Your task to perform on an android device: turn on showing notifications on the lock screen Image 0: 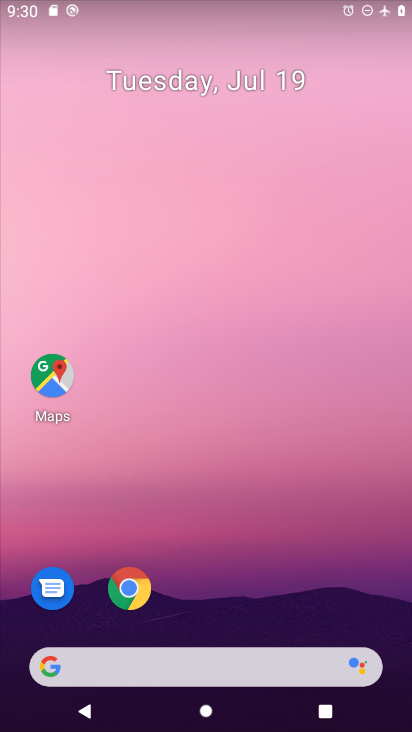
Step 0: drag from (328, 587) to (391, 419)
Your task to perform on an android device: turn on showing notifications on the lock screen Image 1: 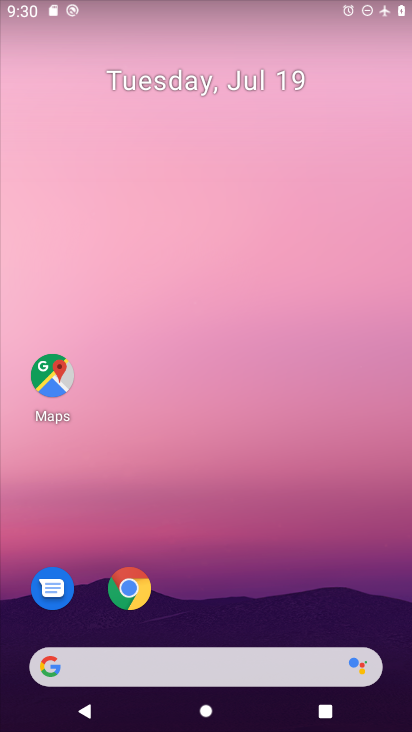
Step 1: drag from (332, 558) to (347, 109)
Your task to perform on an android device: turn on showing notifications on the lock screen Image 2: 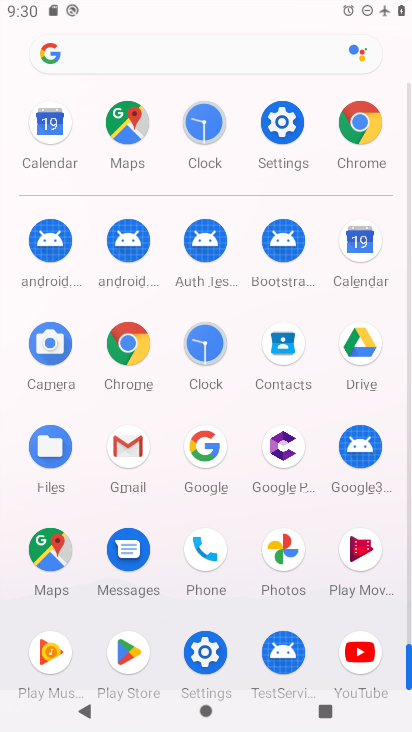
Step 2: click (294, 121)
Your task to perform on an android device: turn on showing notifications on the lock screen Image 3: 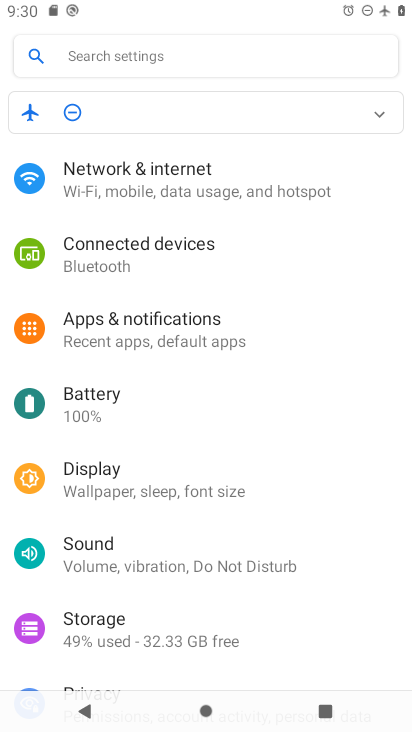
Step 3: drag from (327, 592) to (339, 355)
Your task to perform on an android device: turn on showing notifications on the lock screen Image 4: 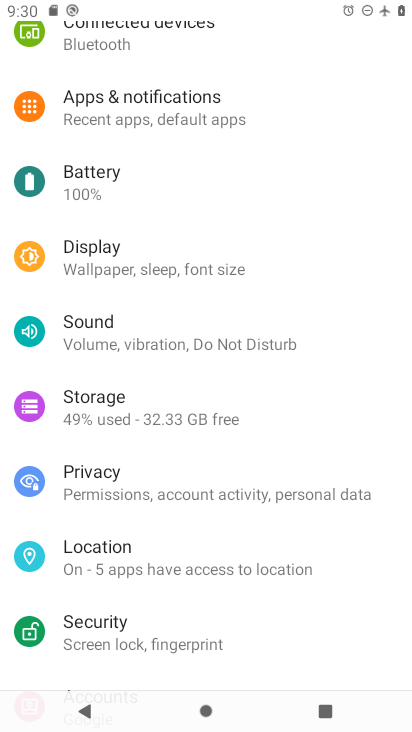
Step 4: drag from (316, 581) to (322, 343)
Your task to perform on an android device: turn on showing notifications on the lock screen Image 5: 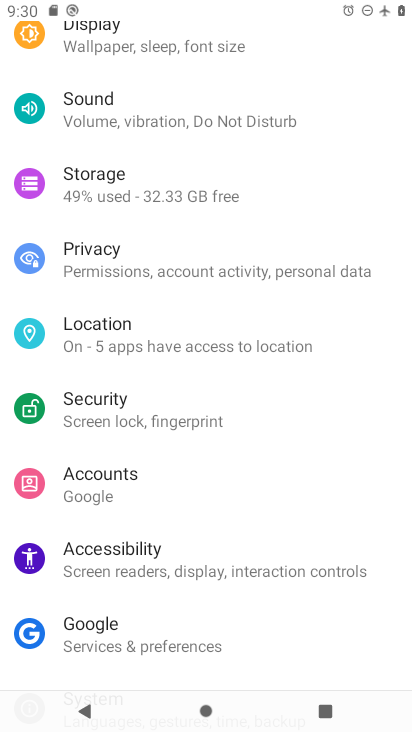
Step 5: drag from (325, 477) to (330, 329)
Your task to perform on an android device: turn on showing notifications on the lock screen Image 6: 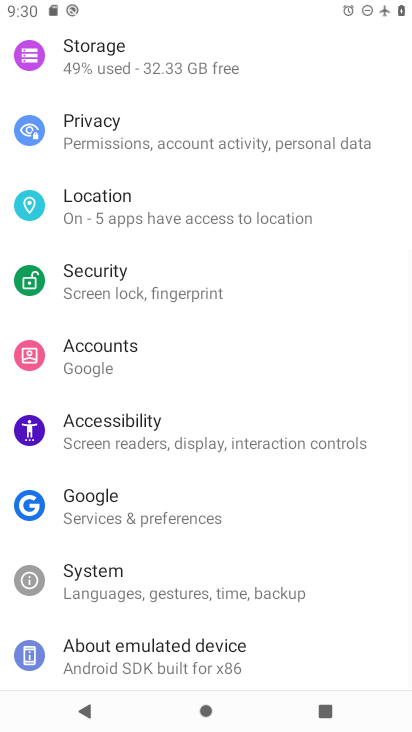
Step 6: drag from (290, 519) to (300, 341)
Your task to perform on an android device: turn on showing notifications on the lock screen Image 7: 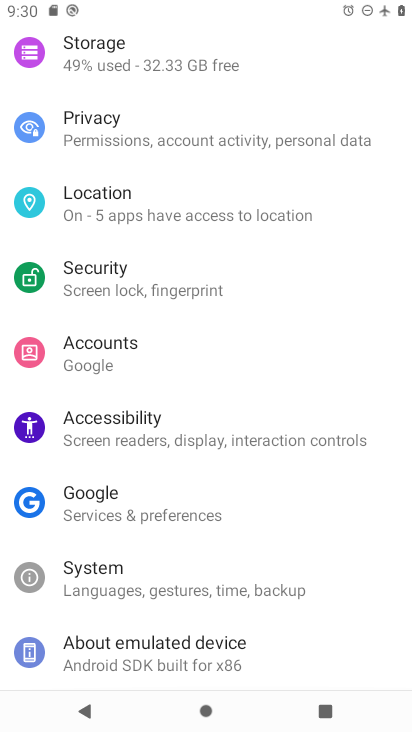
Step 7: drag from (342, 231) to (337, 353)
Your task to perform on an android device: turn on showing notifications on the lock screen Image 8: 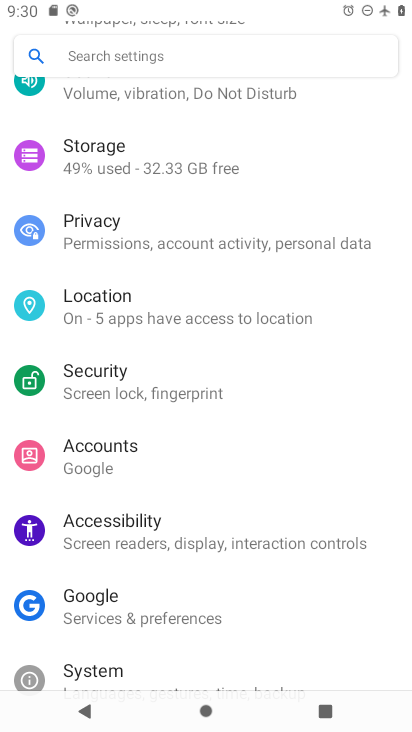
Step 8: drag from (344, 214) to (344, 335)
Your task to perform on an android device: turn on showing notifications on the lock screen Image 9: 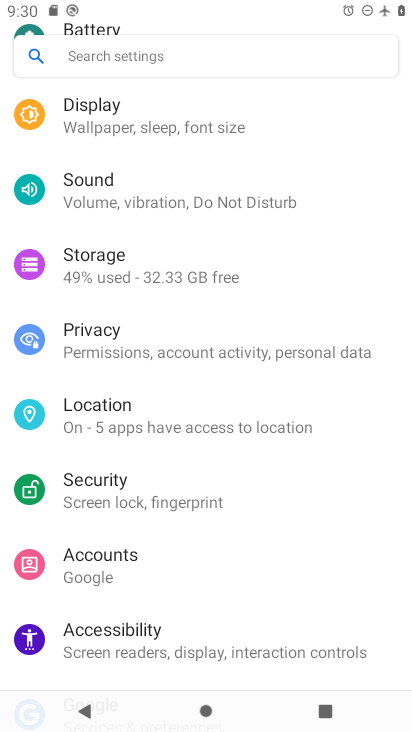
Step 9: drag from (352, 228) to (347, 339)
Your task to perform on an android device: turn on showing notifications on the lock screen Image 10: 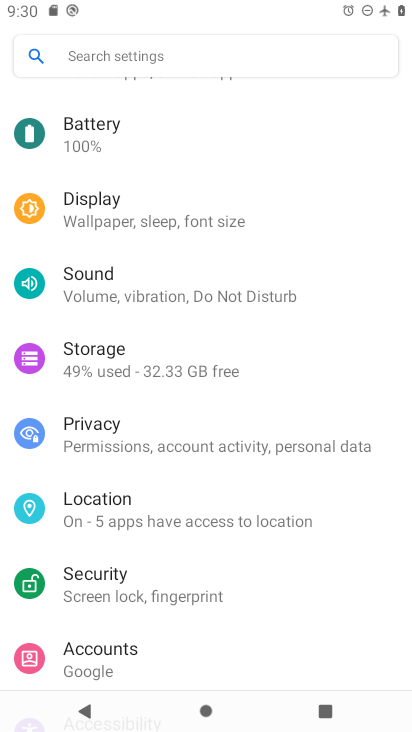
Step 10: drag from (354, 194) to (346, 301)
Your task to perform on an android device: turn on showing notifications on the lock screen Image 11: 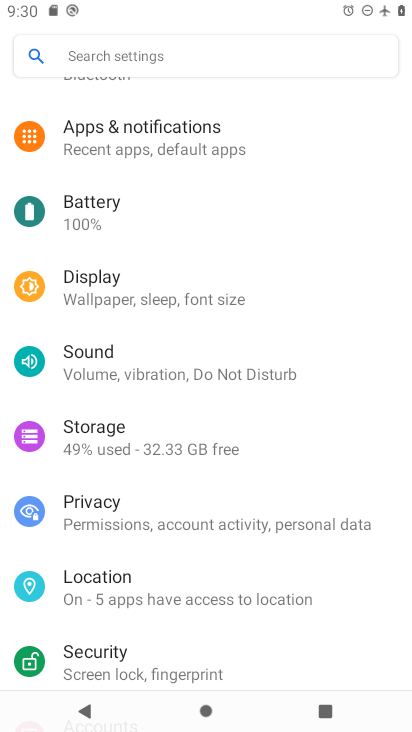
Step 11: drag from (340, 191) to (342, 300)
Your task to perform on an android device: turn on showing notifications on the lock screen Image 12: 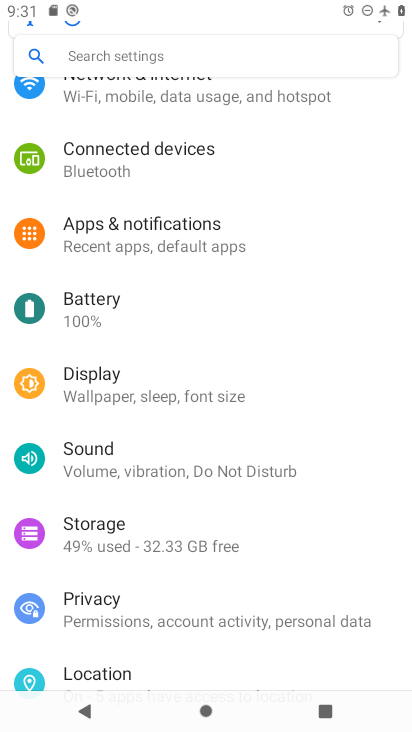
Step 12: drag from (353, 178) to (355, 318)
Your task to perform on an android device: turn on showing notifications on the lock screen Image 13: 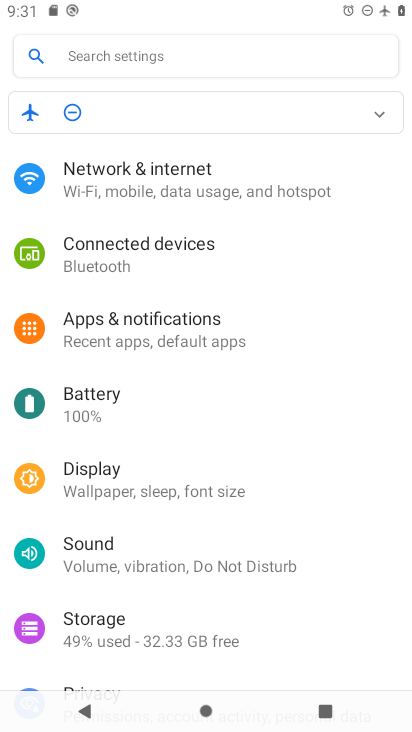
Step 13: click (268, 339)
Your task to perform on an android device: turn on showing notifications on the lock screen Image 14: 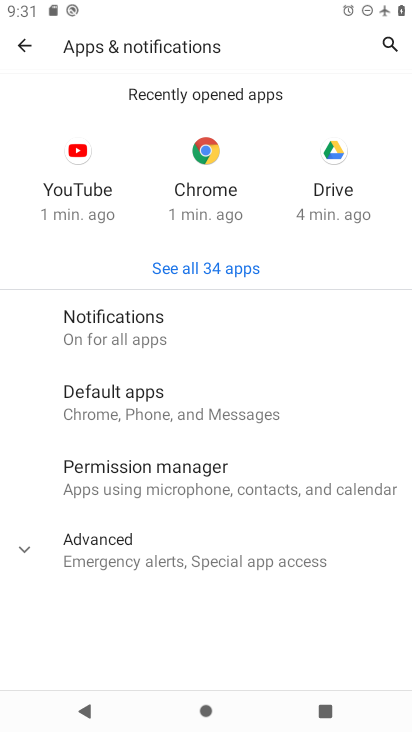
Step 14: click (174, 338)
Your task to perform on an android device: turn on showing notifications on the lock screen Image 15: 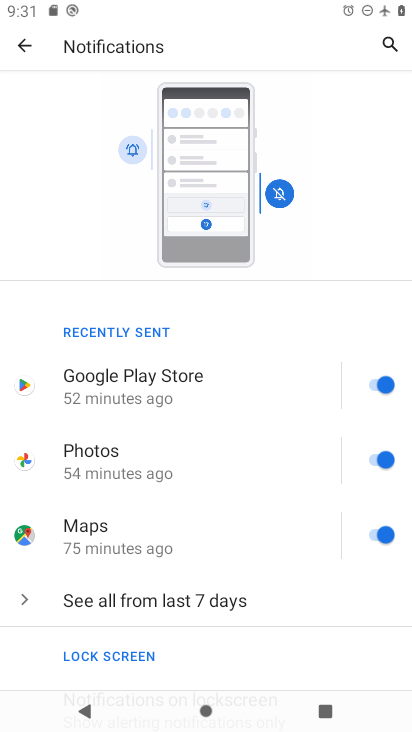
Step 15: drag from (259, 517) to (262, 400)
Your task to perform on an android device: turn on showing notifications on the lock screen Image 16: 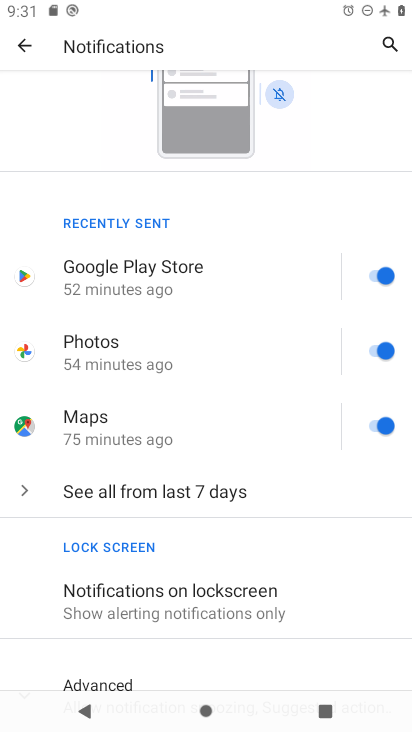
Step 16: drag from (276, 503) to (275, 415)
Your task to perform on an android device: turn on showing notifications on the lock screen Image 17: 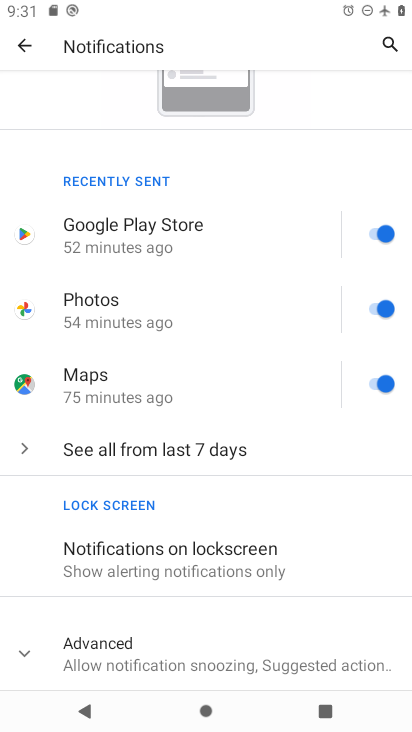
Step 17: click (276, 533)
Your task to perform on an android device: turn on showing notifications on the lock screen Image 18: 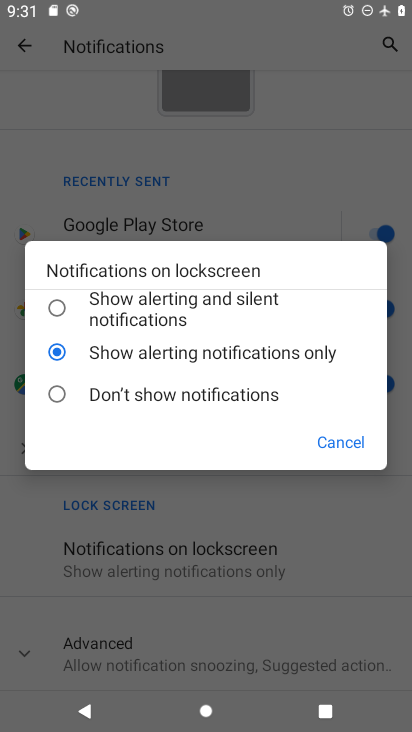
Step 18: task complete